Your task to perform on an android device: check the backup settings in the google photos Image 0: 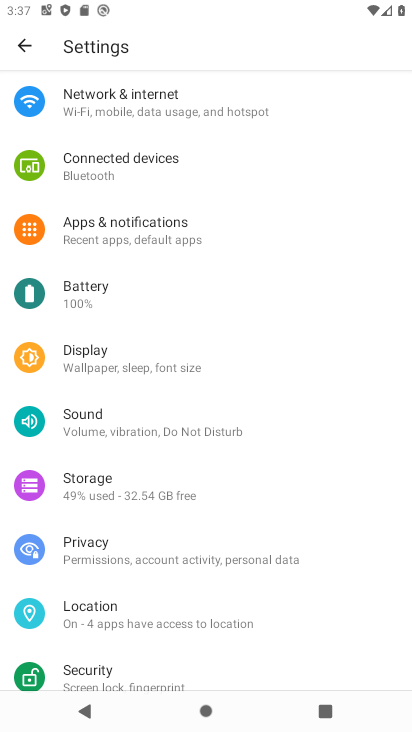
Step 0: press home button
Your task to perform on an android device: check the backup settings in the google photos Image 1: 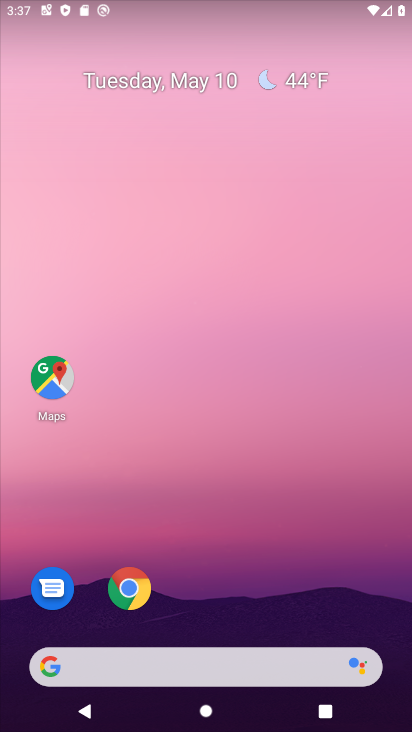
Step 1: drag from (270, 568) to (222, 93)
Your task to perform on an android device: check the backup settings in the google photos Image 2: 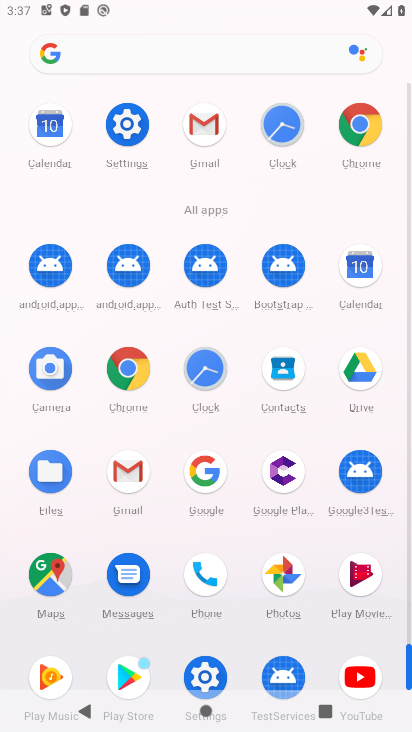
Step 2: click (289, 557)
Your task to perform on an android device: check the backup settings in the google photos Image 3: 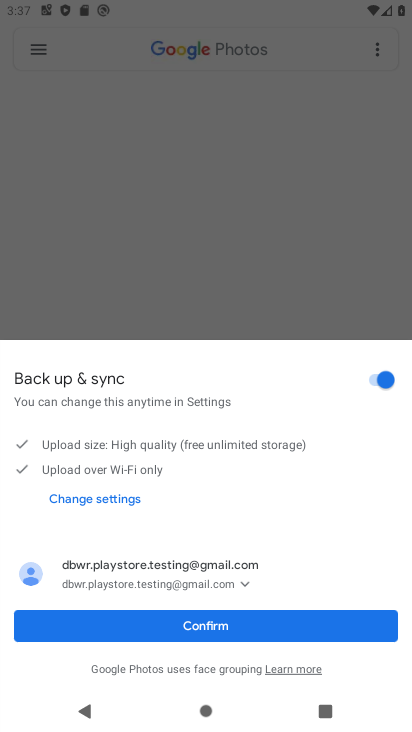
Step 3: click (176, 625)
Your task to perform on an android device: check the backup settings in the google photos Image 4: 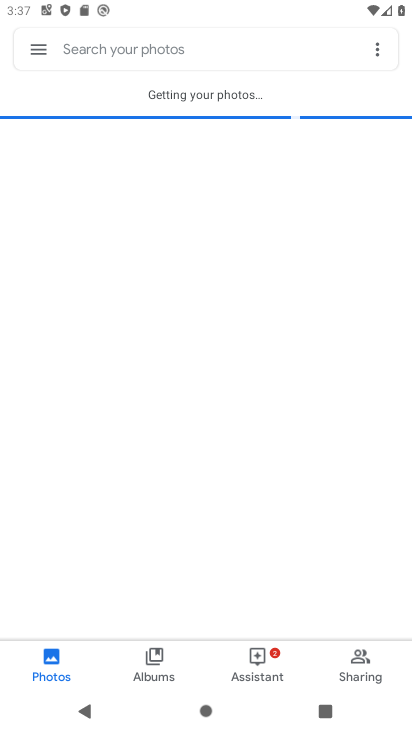
Step 4: click (38, 40)
Your task to perform on an android device: check the backup settings in the google photos Image 5: 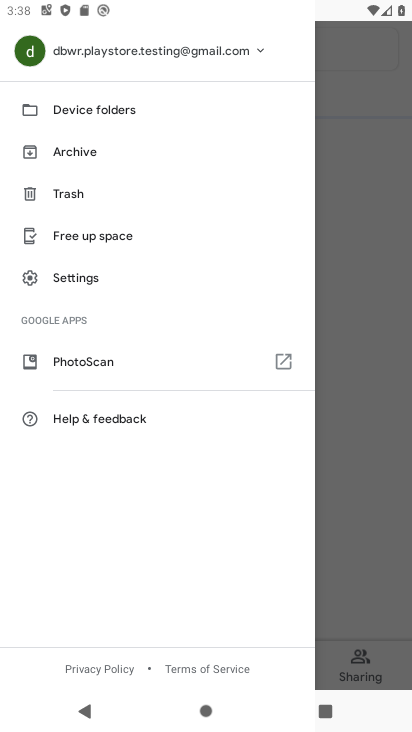
Step 5: click (86, 278)
Your task to perform on an android device: check the backup settings in the google photos Image 6: 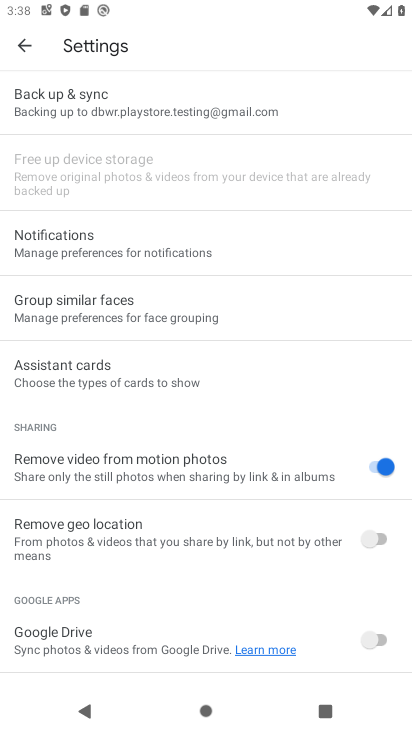
Step 6: click (155, 106)
Your task to perform on an android device: check the backup settings in the google photos Image 7: 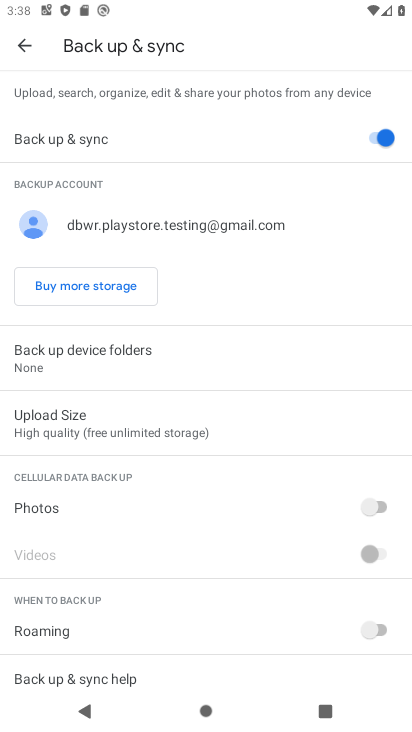
Step 7: task complete